Your task to perform on an android device: What's the weather? Image 0: 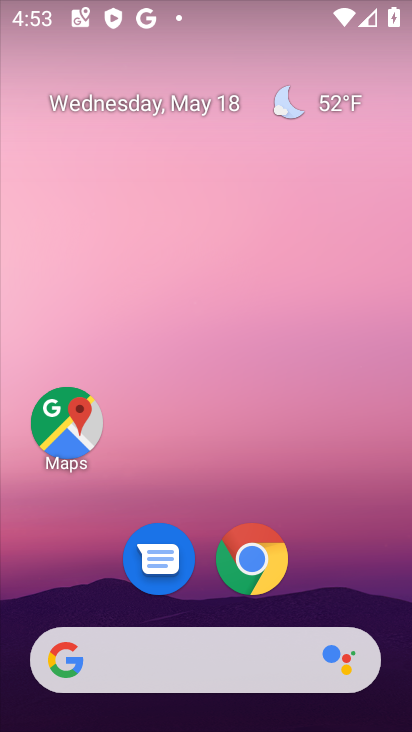
Step 0: click (289, 103)
Your task to perform on an android device: What's the weather? Image 1: 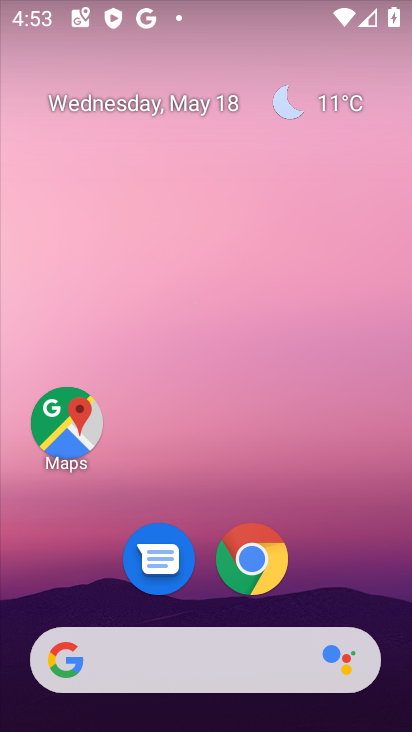
Step 1: click (300, 107)
Your task to perform on an android device: What's the weather? Image 2: 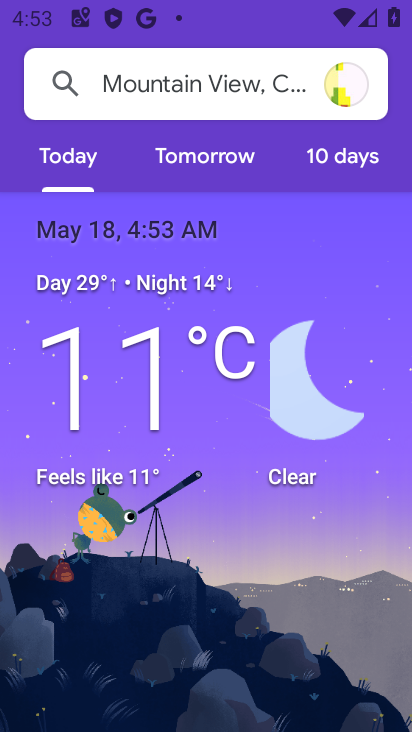
Step 2: task complete